Your task to perform on an android device: open the mobile data screen to see how much data has been used Image 0: 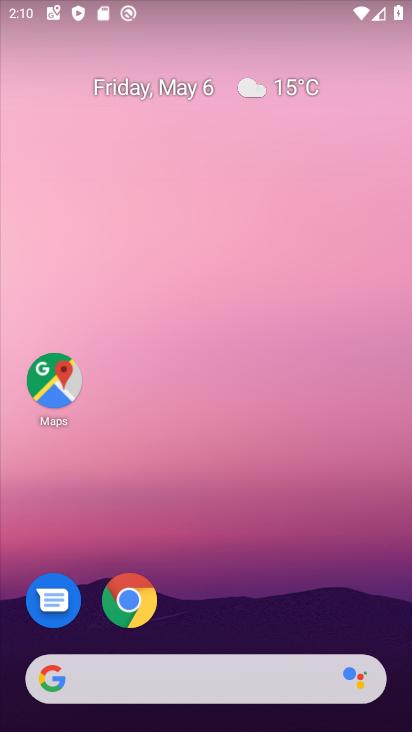
Step 0: drag from (311, 606) to (256, 47)
Your task to perform on an android device: open the mobile data screen to see how much data has been used Image 1: 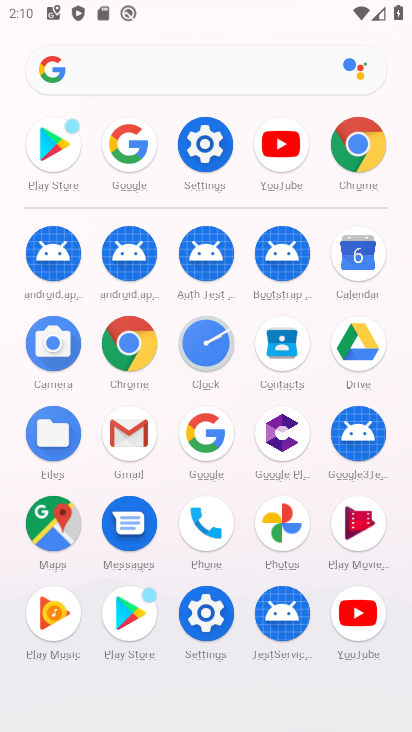
Step 1: click (206, 161)
Your task to perform on an android device: open the mobile data screen to see how much data has been used Image 2: 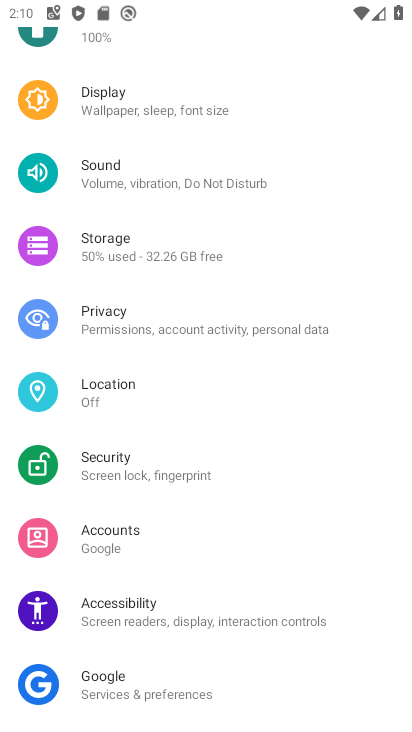
Step 2: drag from (206, 161) to (193, 727)
Your task to perform on an android device: open the mobile data screen to see how much data has been used Image 3: 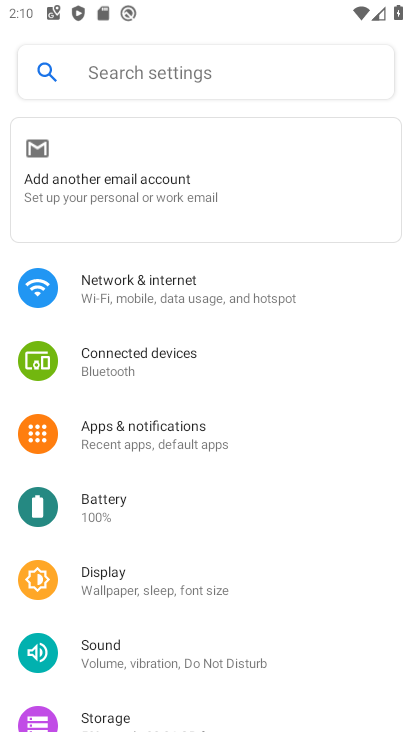
Step 3: click (196, 303)
Your task to perform on an android device: open the mobile data screen to see how much data has been used Image 4: 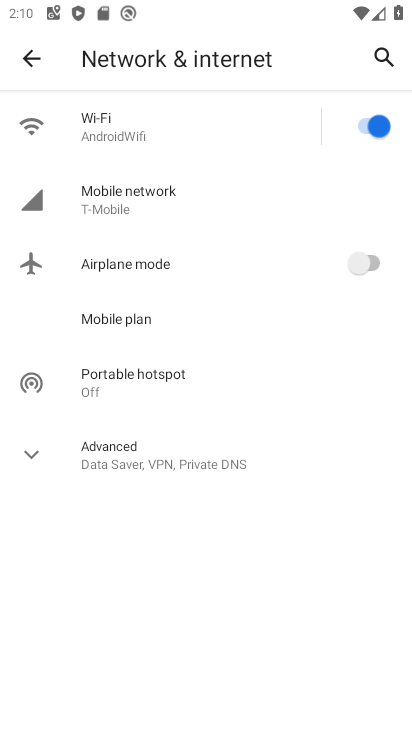
Step 4: click (154, 213)
Your task to perform on an android device: open the mobile data screen to see how much data has been used Image 5: 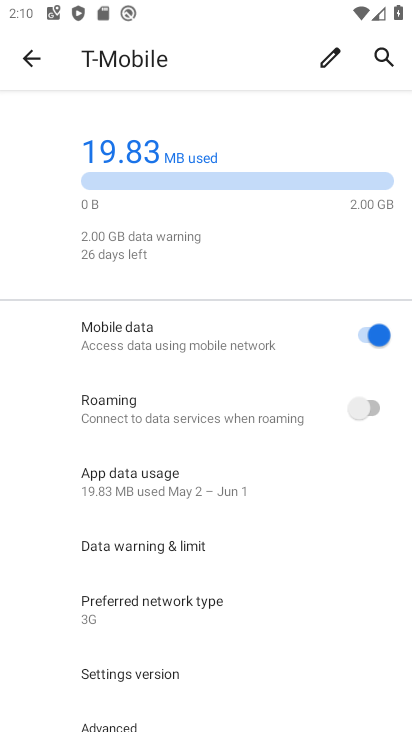
Step 5: click (189, 490)
Your task to perform on an android device: open the mobile data screen to see how much data has been used Image 6: 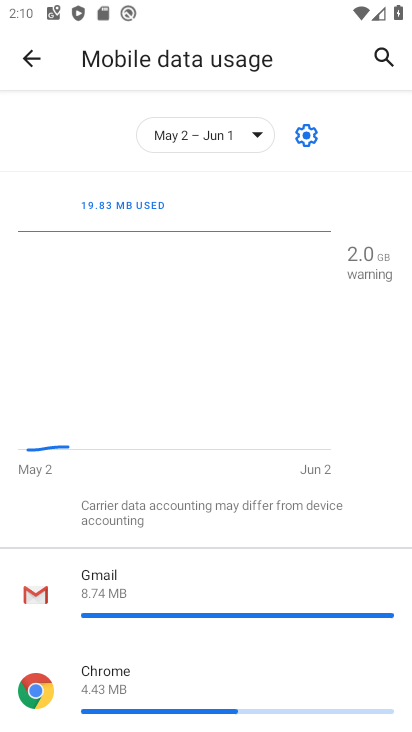
Step 6: task complete